Your task to perform on an android device: refresh tabs in the chrome app Image 0: 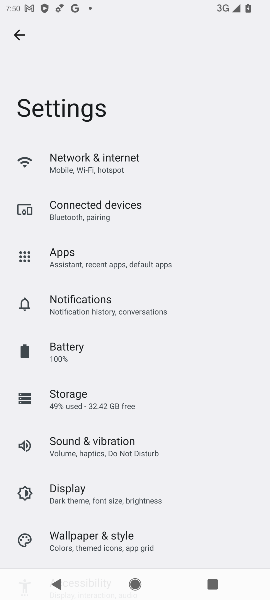
Step 0: press home button
Your task to perform on an android device: refresh tabs in the chrome app Image 1: 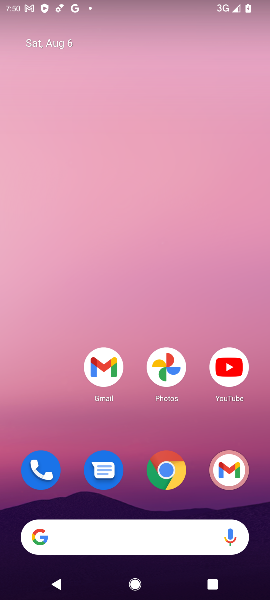
Step 1: drag from (156, 447) to (187, 103)
Your task to perform on an android device: refresh tabs in the chrome app Image 2: 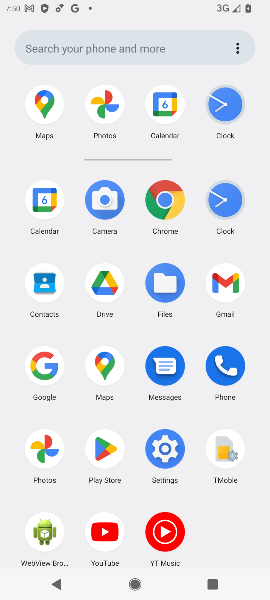
Step 2: click (170, 218)
Your task to perform on an android device: refresh tabs in the chrome app Image 3: 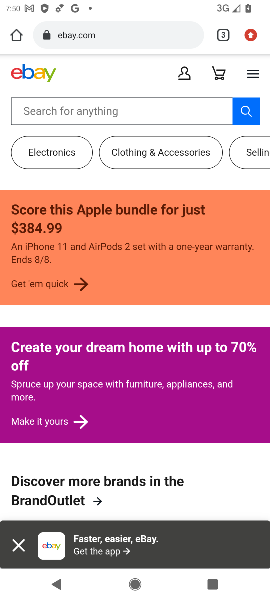
Step 3: click (255, 34)
Your task to perform on an android device: refresh tabs in the chrome app Image 4: 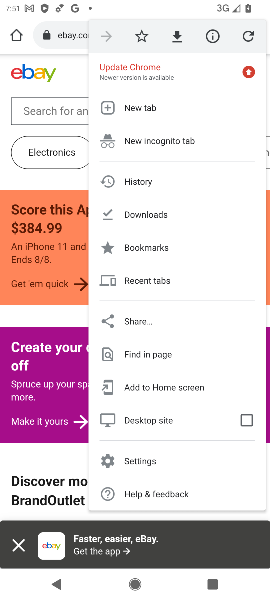
Step 4: click (247, 40)
Your task to perform on an android device: refresh tabs in the chrome app Image 5: 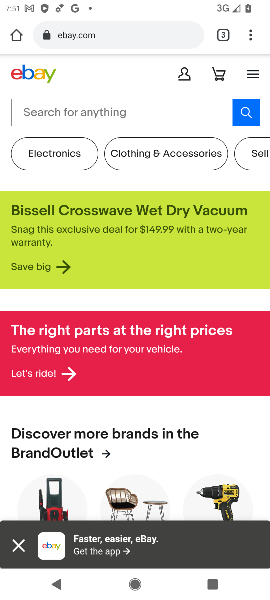
Step 5: task complete